Your task to perform on an android device: check android version Image 0: 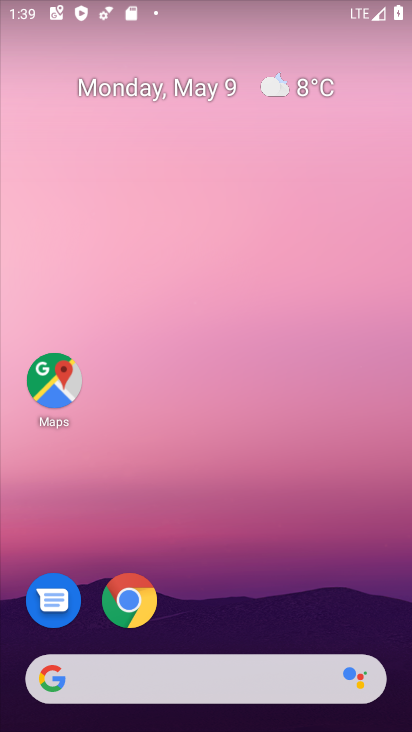
Step 0: press home button
Your task to perform on an android device: check android version Image 1: 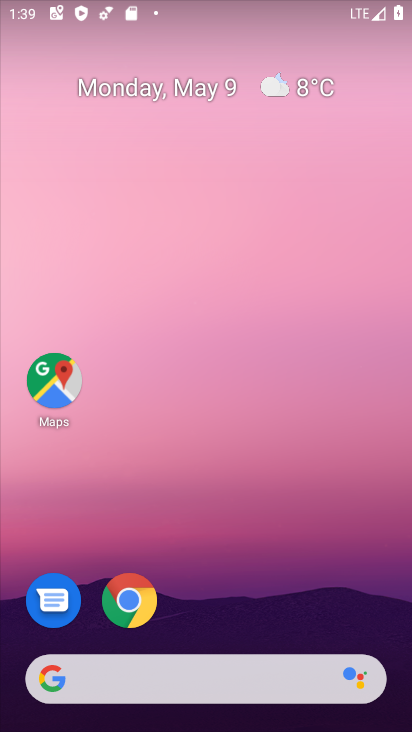
Step 1: drag from (200, 639) to (233, 70)
Your task to perform on an android device: check android version Image 2: 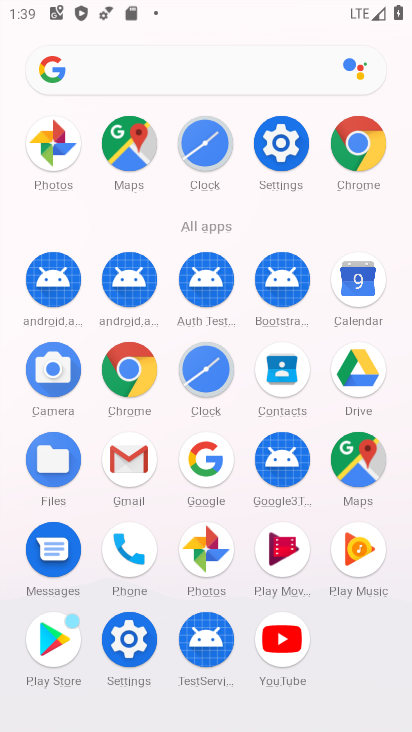
Step 2: click (126, 636)
Your task to perform on an android device: check android version Image 3: 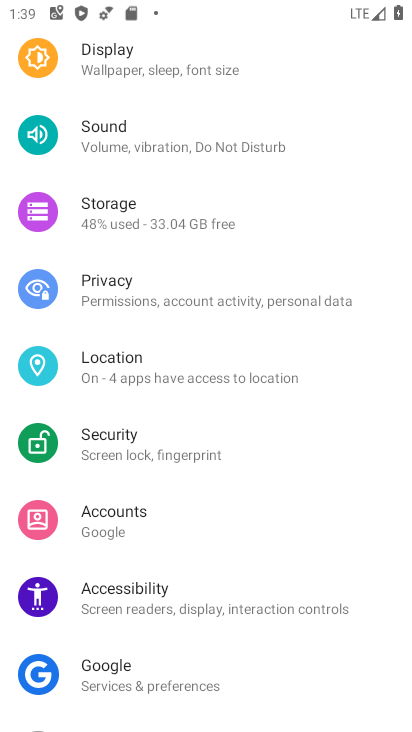
Step 3: drag from (166, 654) to (174, 341)
Your task to perform on an android device: check android version Image 4: 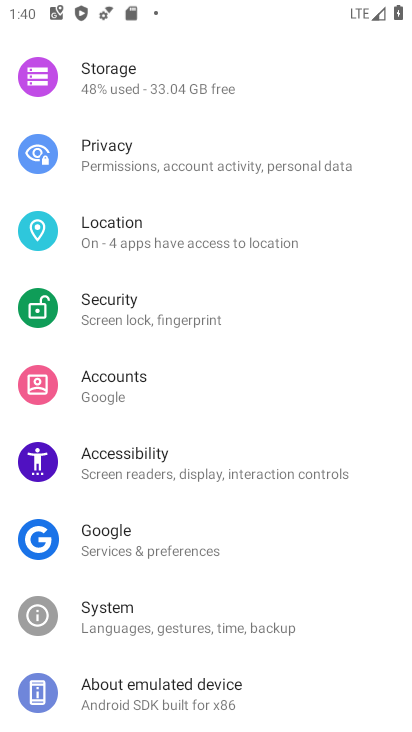
Step 4: click (194, 686)
Your task to perform on an android device: check android version Image 5: 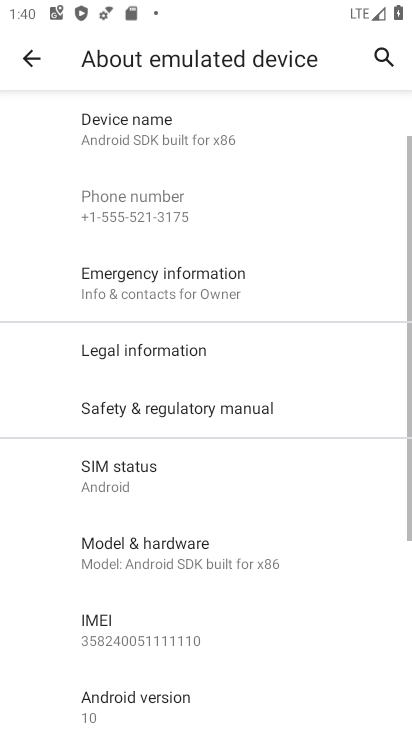
Step 5: click (179, 711)
Your task to perform on an android device: check android version Image 6: 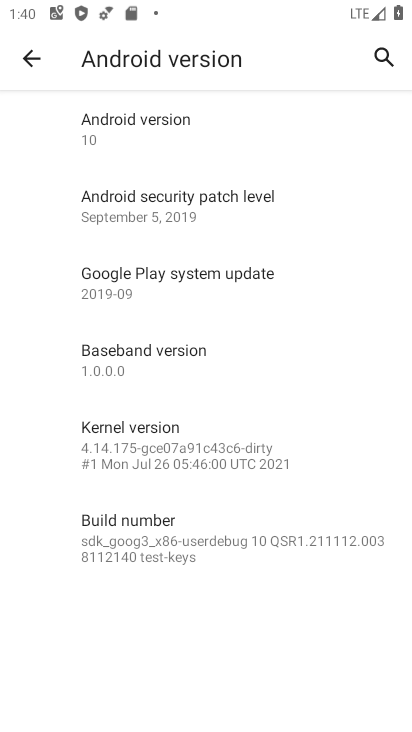
Step 6: task complete